Your task to perform on an android device: change the clock display to show seconds Image 0: 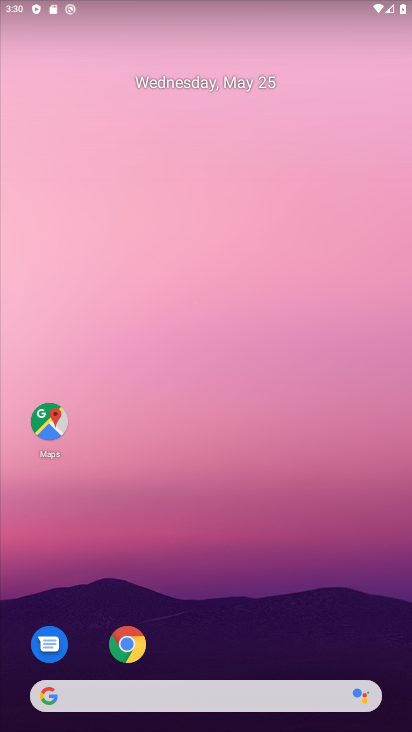
Step 0: drag from (333, 659) to (406, 19)
Your task to perform on an android device: change the clock display to show seconds Image 1: 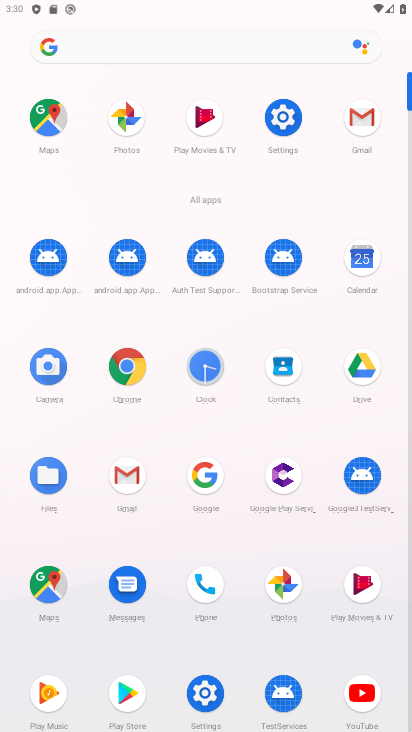
Step 1: click (195, 369)
Your task to perform on an android device: change the clock display to show seconds Image 2: 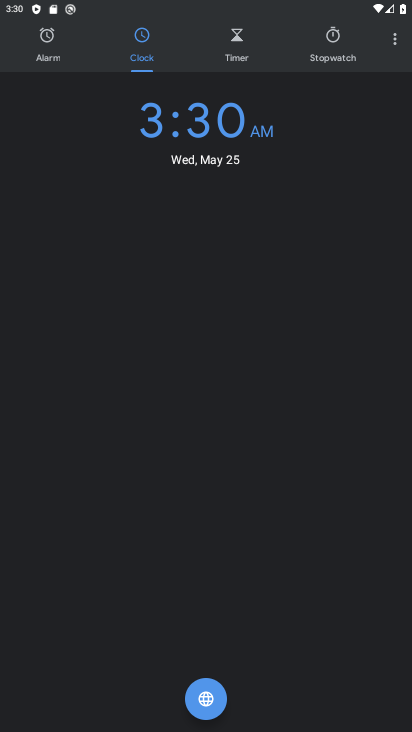
Step 2: click (398, 43)
Your task to perform on an android device: change the clock display to show seconds Image 3: 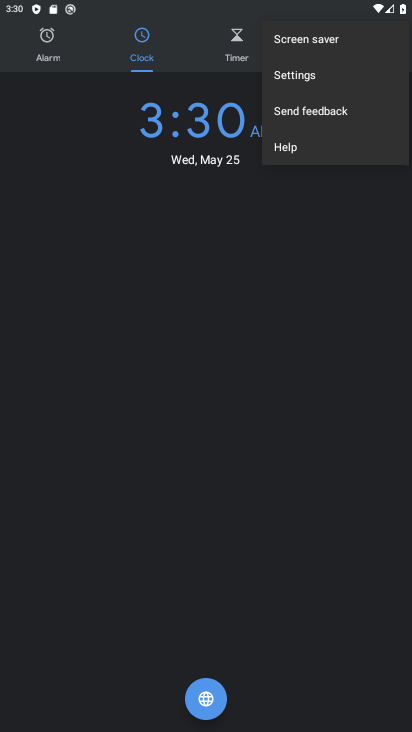
Step 3: click (291, 79)
Your task to perform on an android device: change the clock display to show seconds Image 4: 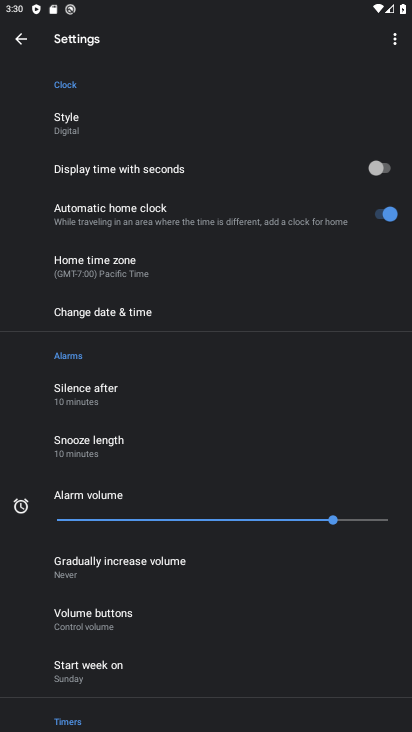
Step 4: click (369, 169)
Your task to perform on an android device: change the clock display to show seconds Image 5: 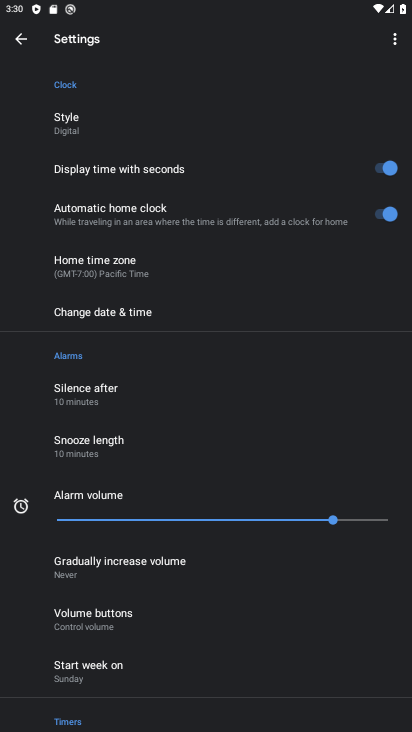
Step 5: task complete